Your task to perform on an android device: change the upload size in google photos Image 0: 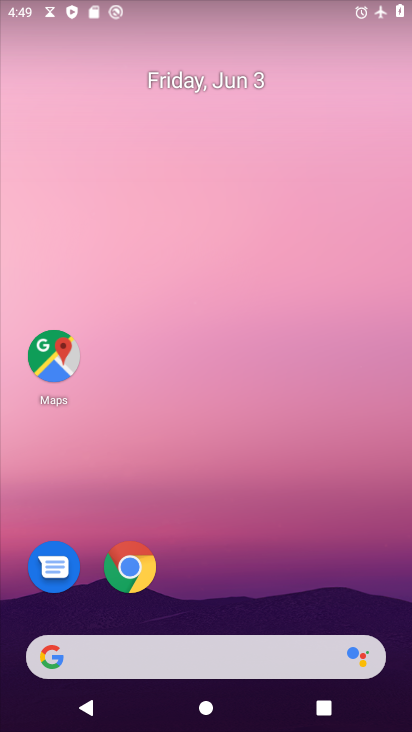
Step 0: drag from (238, 553) to (265, 82)
Your task to perform on an android device: change the upload size in google photos Image 1: 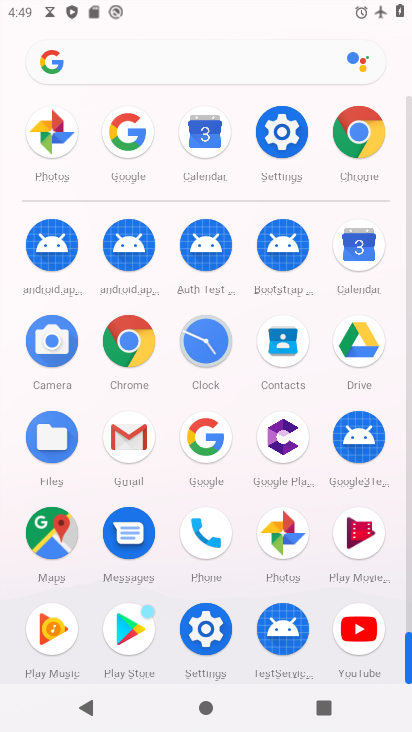
Step 1: click (56, 133)
Your task to perform on an android device: change the upload size in google photos Image 2: 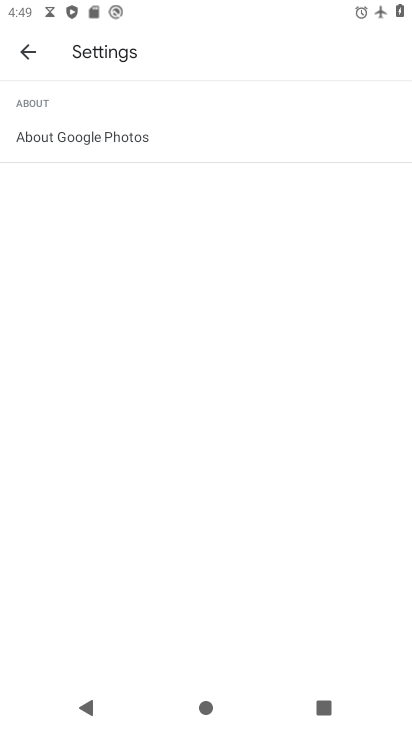
Step 2: click (30, 57)
Your task to perform on an android device: change the upload size in google photos Image 3: 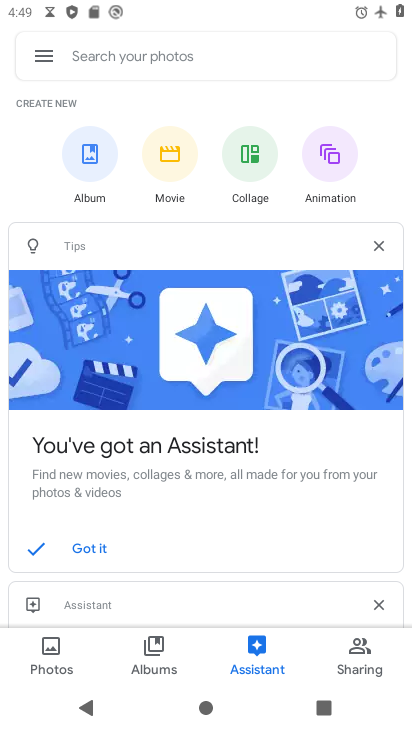
Step 3: click (47, 54)
Your task to perform on an android device: change the upload size in google photos Image 4: 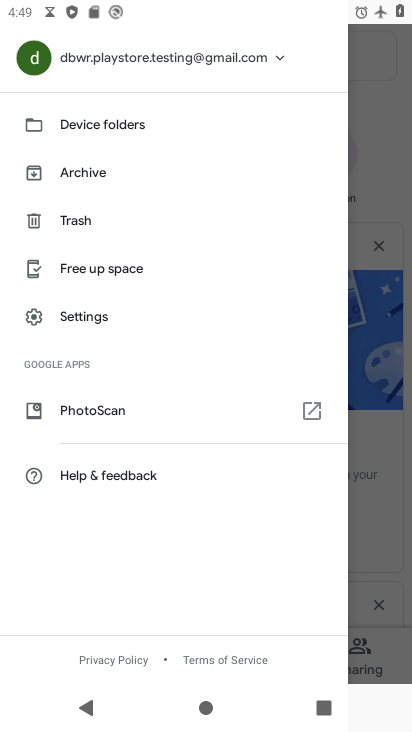
Step 4: click (83, 314)
Your task to perform on an android device: change the upload size in google photos Image 5: 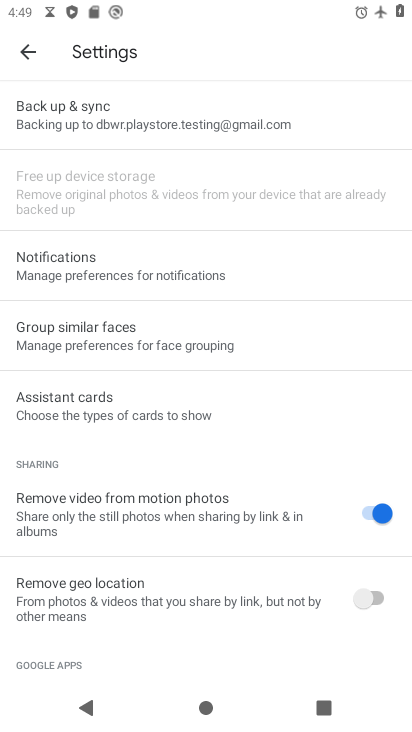
Step 5: click (134, 121)
Your task to perform on an android device: change the upload size in google photos Image 6: 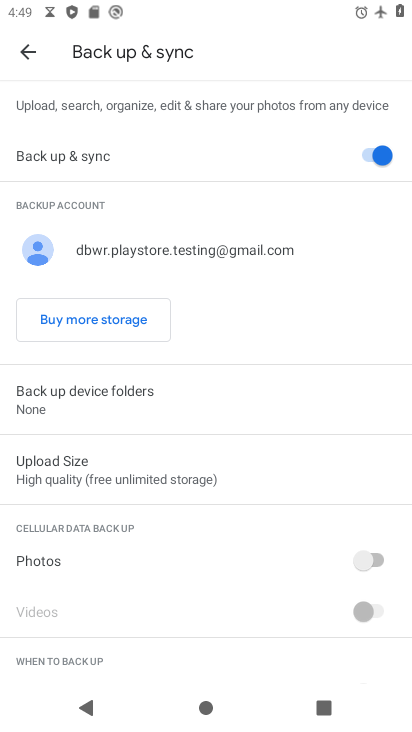
Step 6: click (115, 474)
Your task to perform on an android device: change the upload size in google photos Image 7: 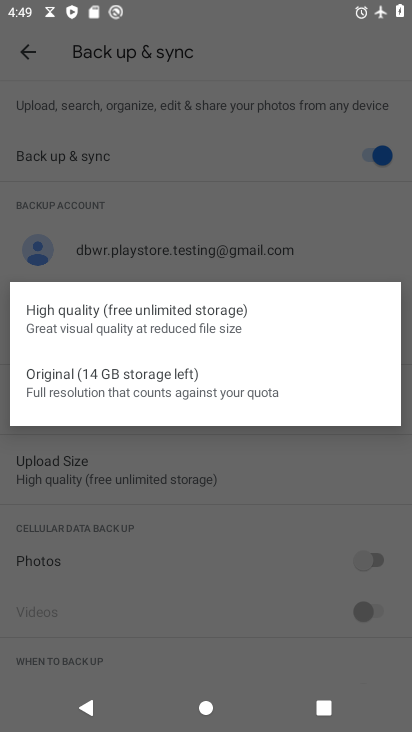
Step 7: click (130, 381)
Your task to perform on an android device: change the upload size in google photos Image 8: 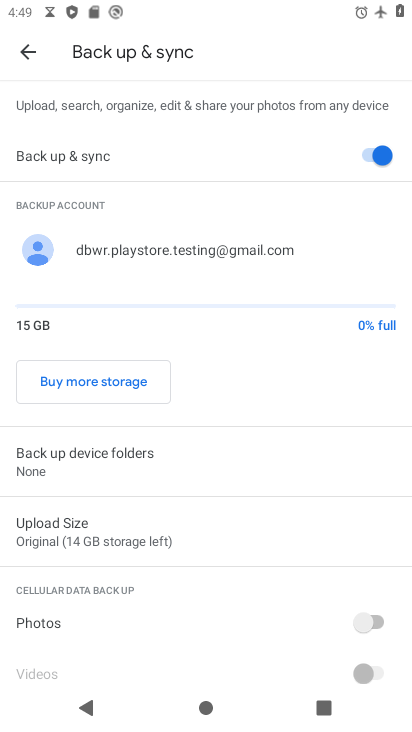
Step 8: task complete